Your task to perform on an android device: change the clock display to show seconds Image 0: 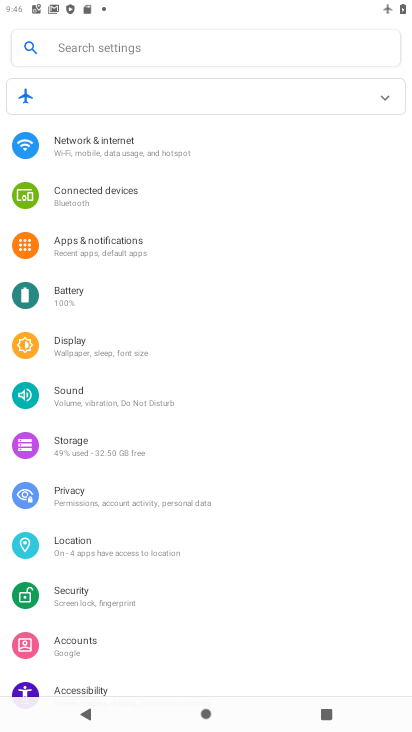
Step 0: press home button
Your task to perform on an android device: change the clock display to show seconds Image 1: 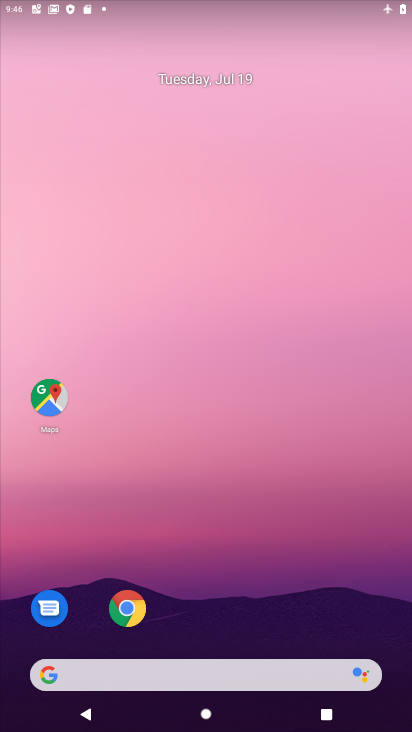
Step 1: drag from (325, 608) to (293, 74)
Your task to perform on an android device: change the clock display to show seconds Image 2: 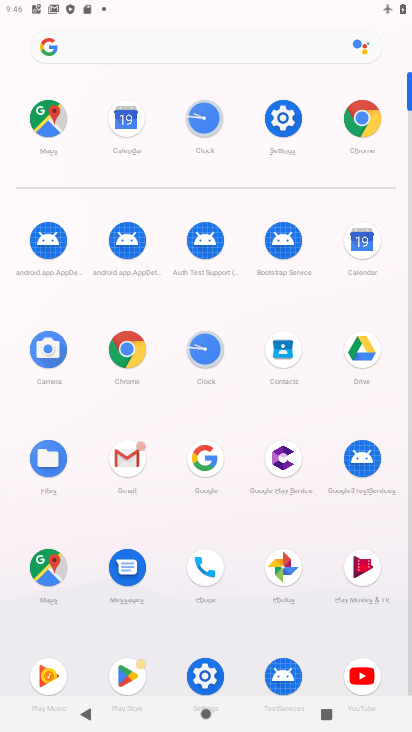
Step 2: click (294, 123)
Your task to perform on an android device: change the clock display to show seconds Image 3: 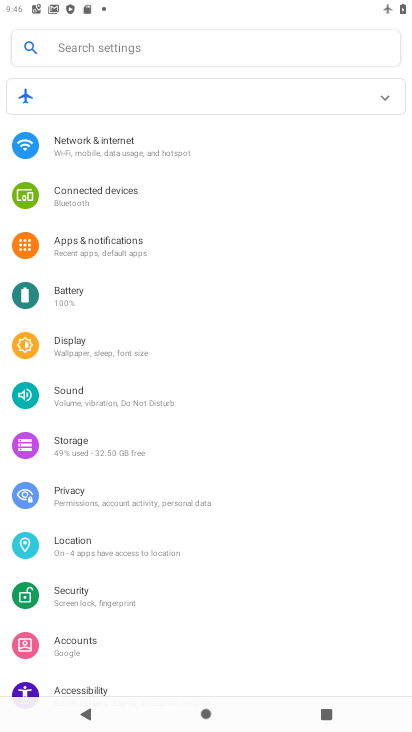
Step 3: press home button
Your task to perform on an android device: change the clock display to show seconds Image 4: 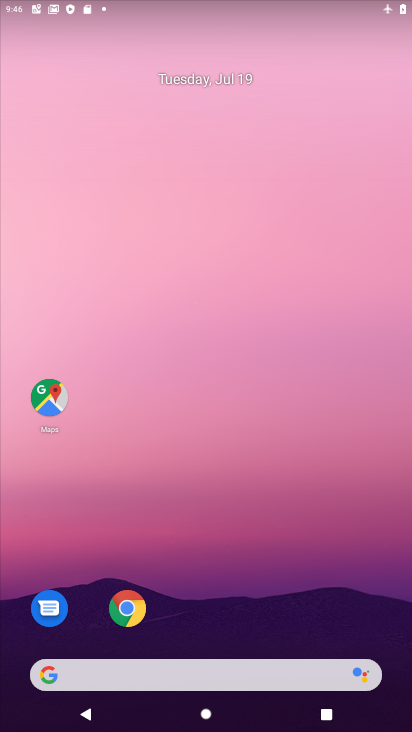
Step 4: drag from (323, 624) to (245, 120)
Your task to perform on an android device: change the clock display to show seconds Image 5: 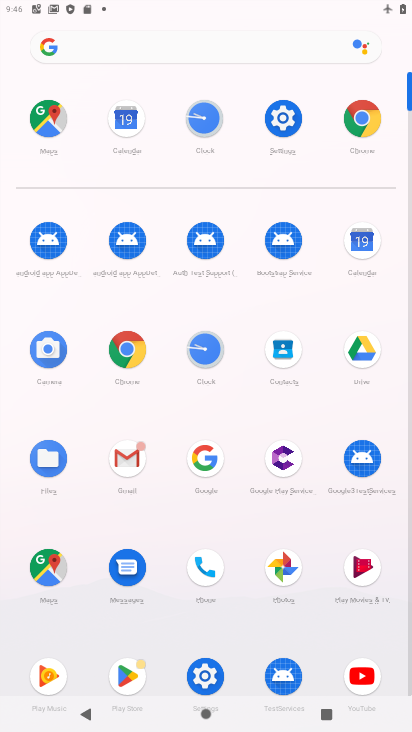
Step 5: click (204, 351)
Your task to perform on an android device: change the clock display to show seconds Image 6: 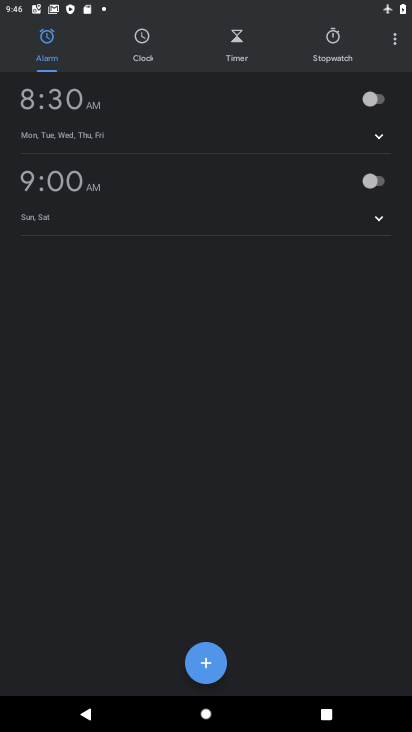
Step 6: click (397, 45)
Your task to perform on an android device: change the clock display to show seconds Image 7: 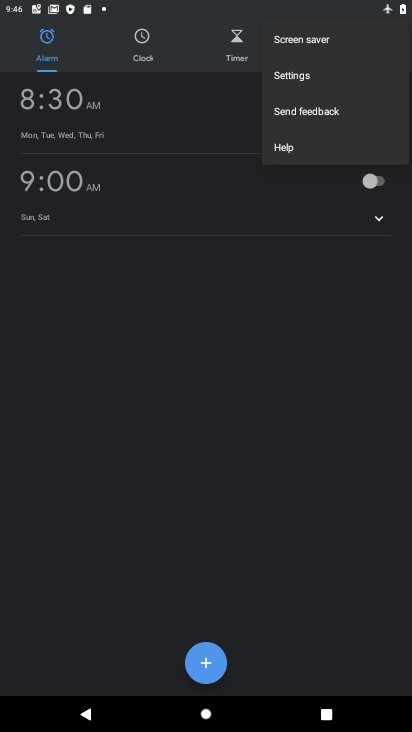
Step 7: click (316, 86)
Your task to perform on an android device: change the clock display to show seconds Image 8: 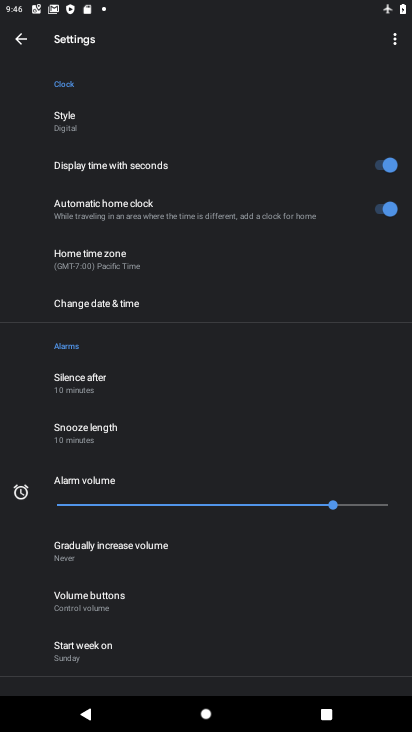
Step 8: task complete